Your task to perform on an android device: Open Google Image 0: 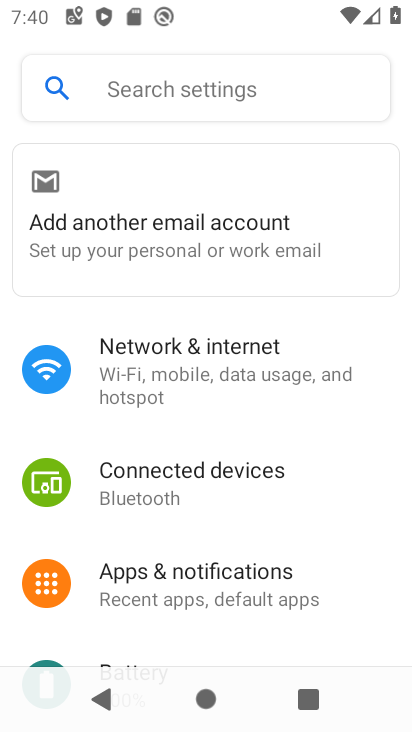
Step 0: press home button
Your task to perform on an android device: Open Google Image 1: 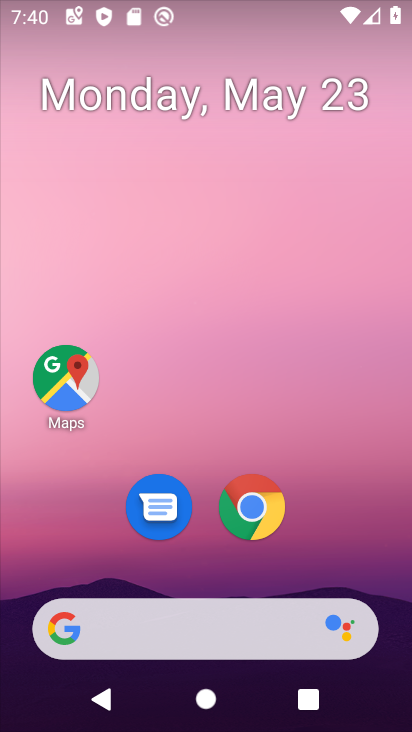
Step 1: drag from (343, 554) to (340, 171)
Your task to perform on an android device: Open Google Image 2: 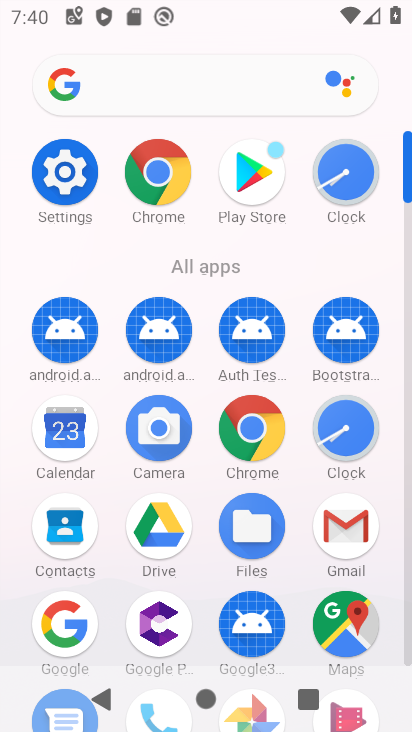
Step 2: drag from (123, 573) to (184, 212)
Your task to perform on an android device: Open Google Image 3: 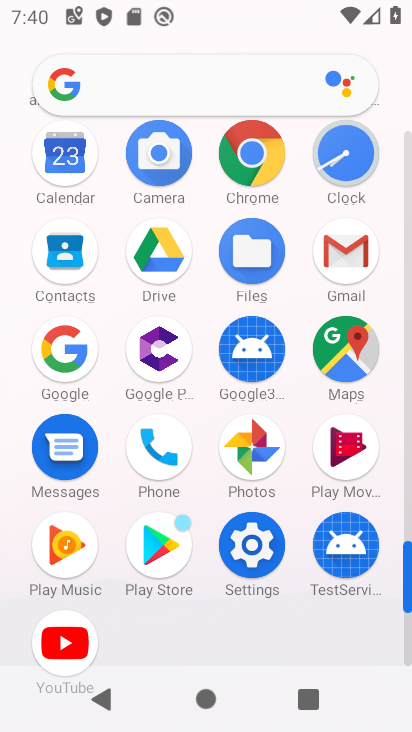
Step 3: click (80, 345)
Your task to perform on an android device: Open Google Image 4: 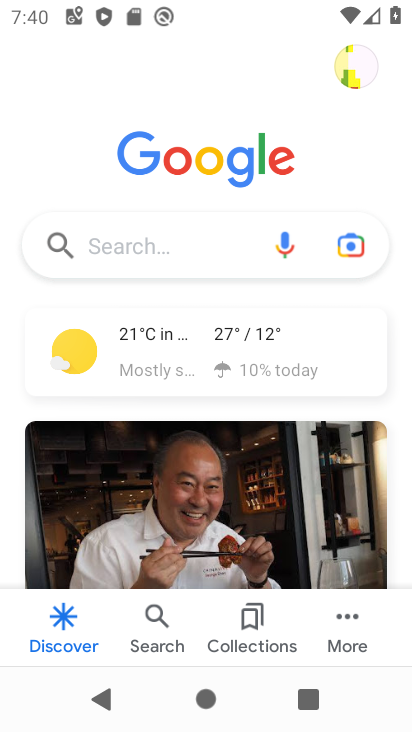
Step 4: task complete